Your task to perform on an android device: change your default location settings in chrome Image 0: 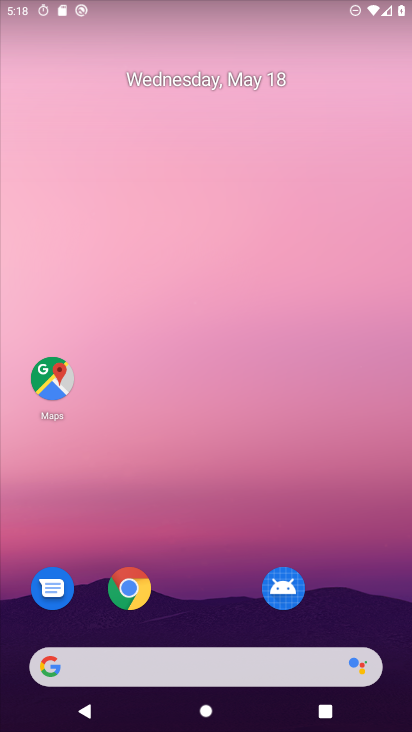
Step 0: drag from (176, 562) to (184, 103)
Your task to perform on an android device: change your default location settings in chrome Image 1: 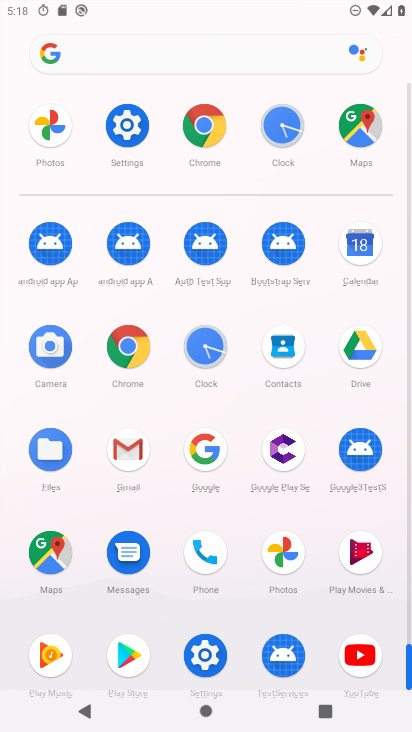
Step 1: click (213, 122)
Your task to perform on an android device: change your default location settings in chrome Image 2: 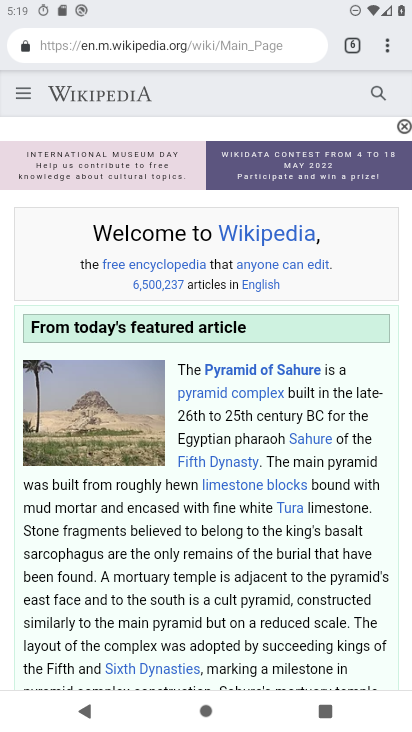
Step 2: drag from (387, 43) to (232, 562)
Your task to perform on an android device: change your default location settings in chrome Image 3: 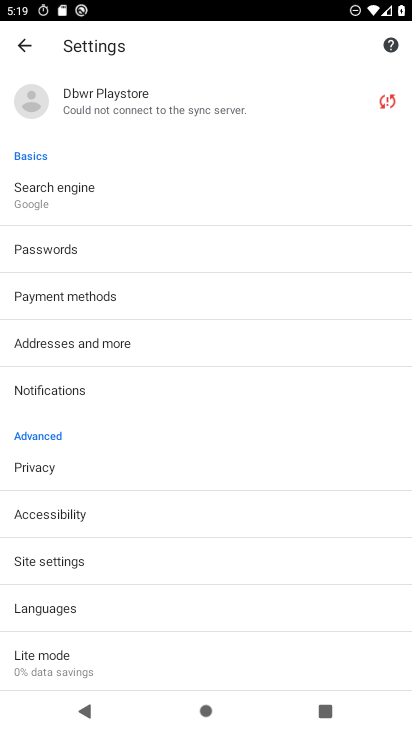
Step 3: click (100, 558)
Your task to perform on an android device: change your default location settings in chrome Image 4: 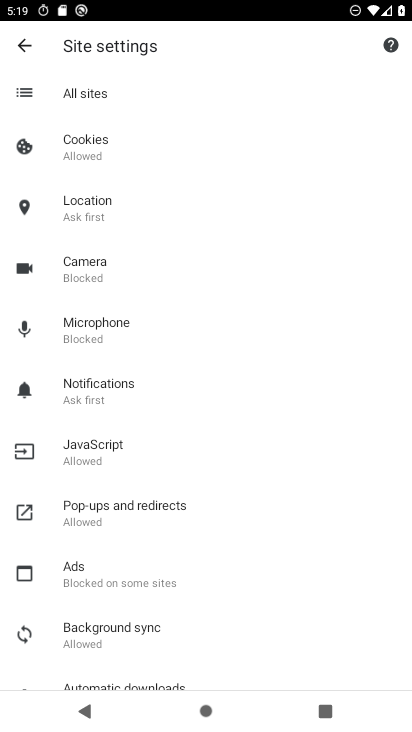
Step 4: click (103, 199)
Your task to perform on an android device: change your default location settings in chrome Image 5: 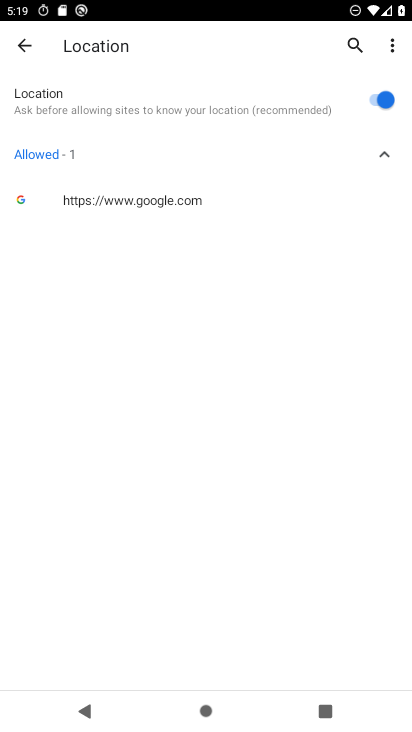
Step 5: click (370, 93)
Your task to perform on an android device: change your default location settings in chrome Image 6: 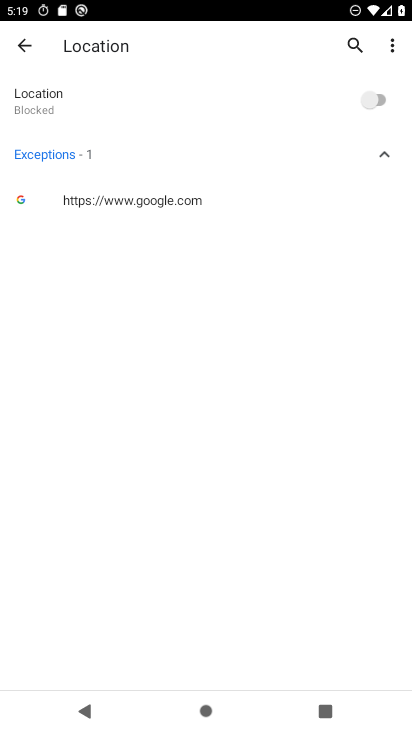
Step 6: task complete